Your task to perform on an android device: open app "Nova Launcher" Image 0: 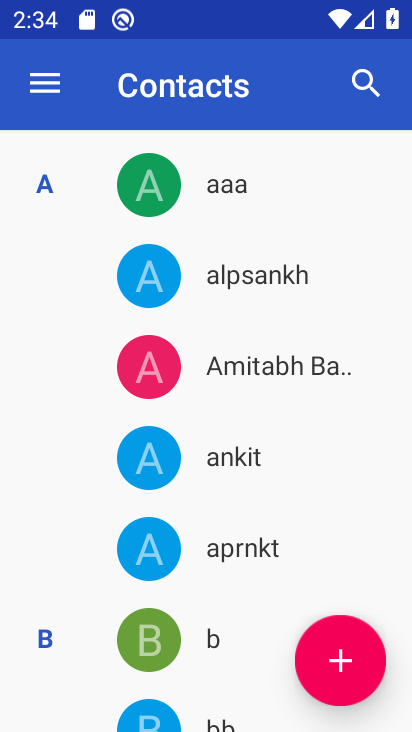
Step 0: press home button
Your task to perform on an android device: open app "Nova Launcher" Image 1: 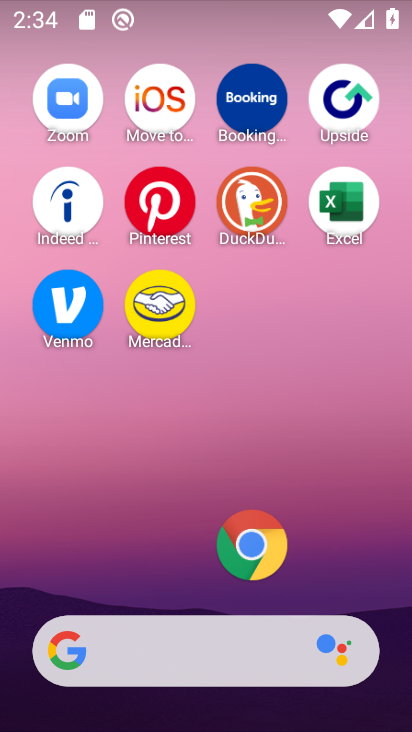
Step 1: drag from (113, 532) to (202, 72)
Your task to perform on an android device: open app "Nova Launcher" Image 2: 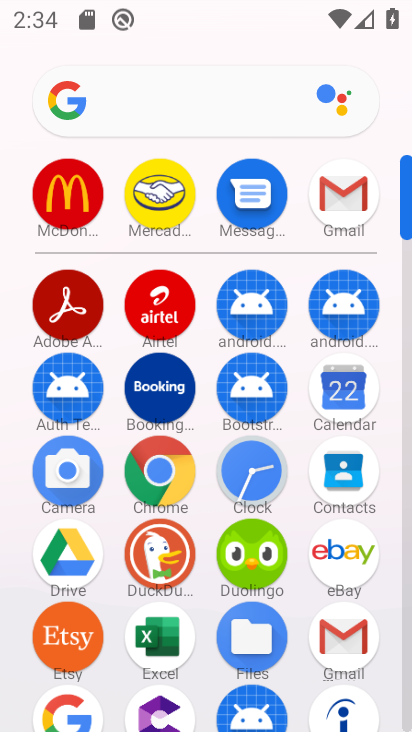
Step 2: drag from (220, 675) to (237, 72)
Your task to perform on an android device: open app "Nova Launcher" Image 3: 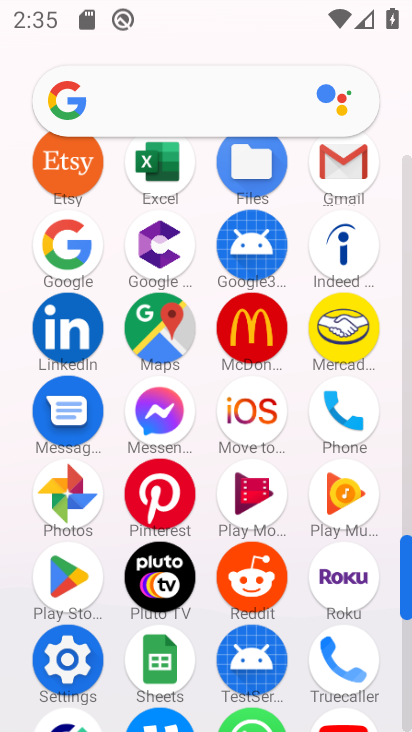
Step 3: click (69, 562)
Your task to perform on an android device: open app "Nova Launcher" Image 4: 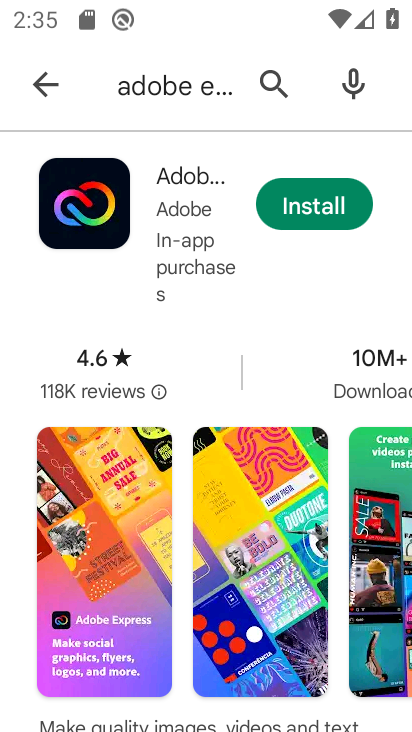
Step 4: click (271, 74)
Your task to perform on an android device: open app "Nova Launcher" Image 5: 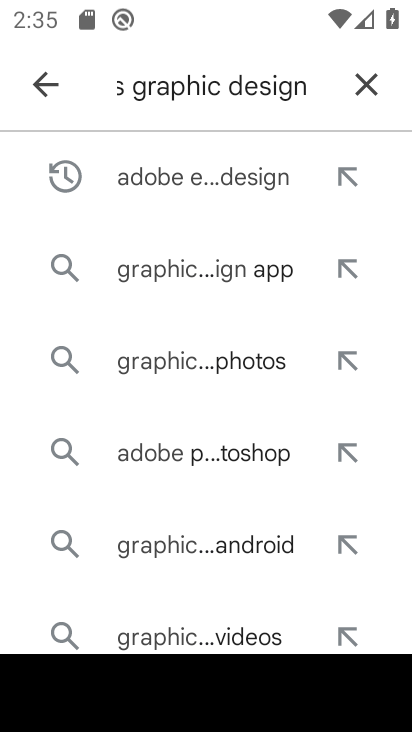
Step 5: click (352, 79)
Your task to perform on an android device: open app "Nova Launcher" Image 6: 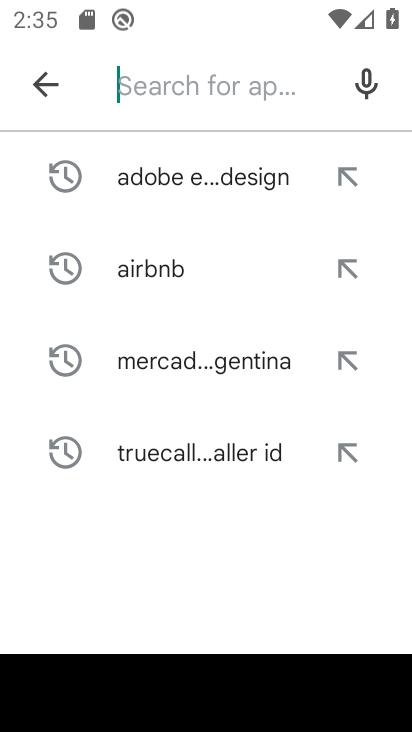
Step 6: click (169, 80)
Your task to perform on an android device: open app "Nova Launcher" Image 7: 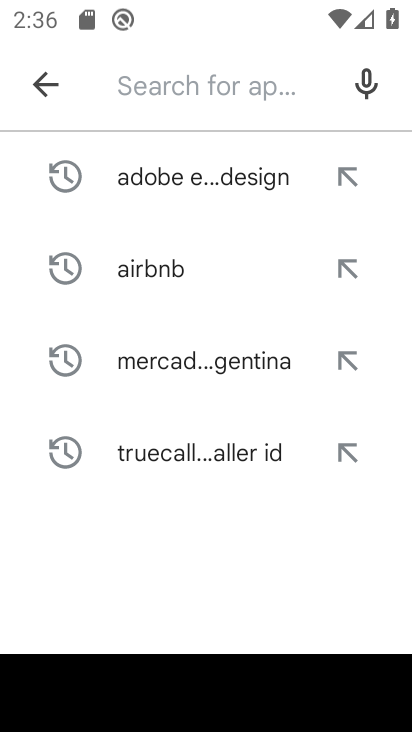
Step 7: click (170, 102)
Your task to perform on an android device: open app "Nova Launcher" Image 8: 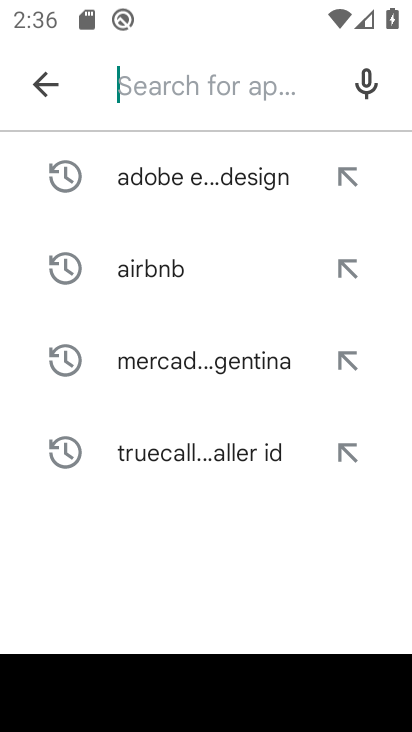
Step 8: type "Nova Launcher"
Your task to perform on an android device: open app "Nova Launcher" Image 9: 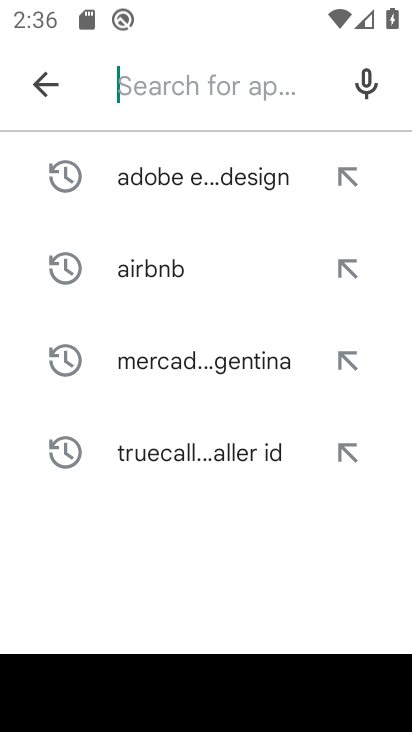
Step 9: click (162, 88)
Your task to perform on an android device: open app "Nova Launcher" Image 10: 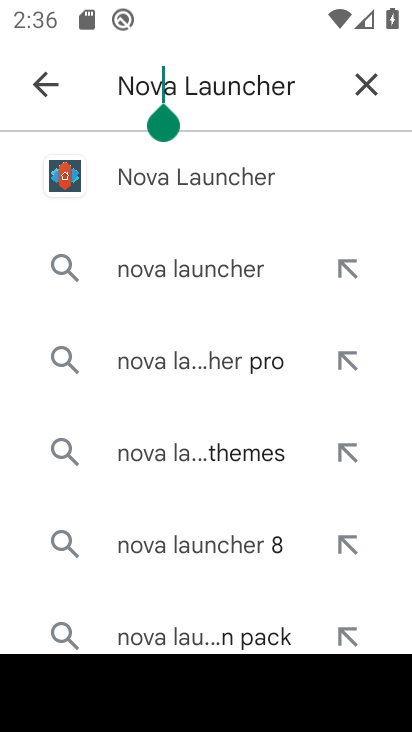
Step 10: click (197, 160)
Your task to perform on an android device: open app "Nova Launcher" Image 11: 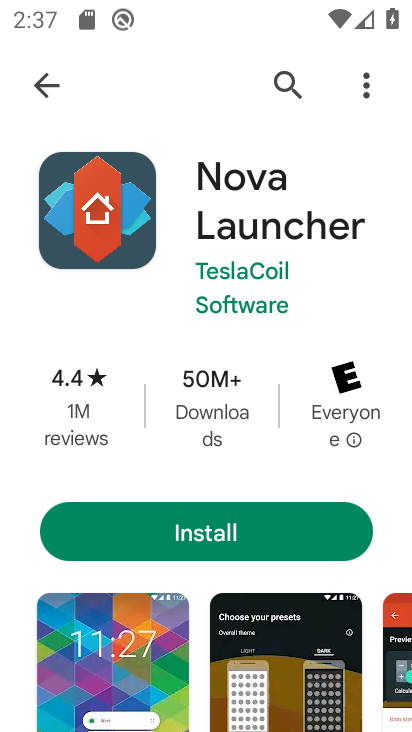
Step 11: task complete